Your task to perform on an android device: open a new tab in the chrome app Image 0: 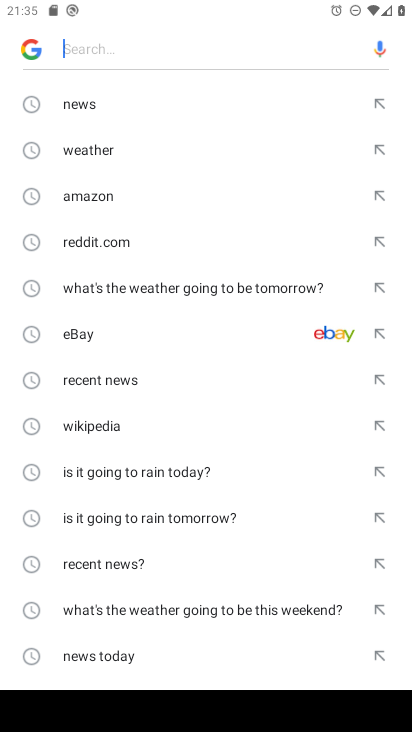
Step 0: press home button
Your task to perform on an android device: open a new tab in the chrome app Image 1: 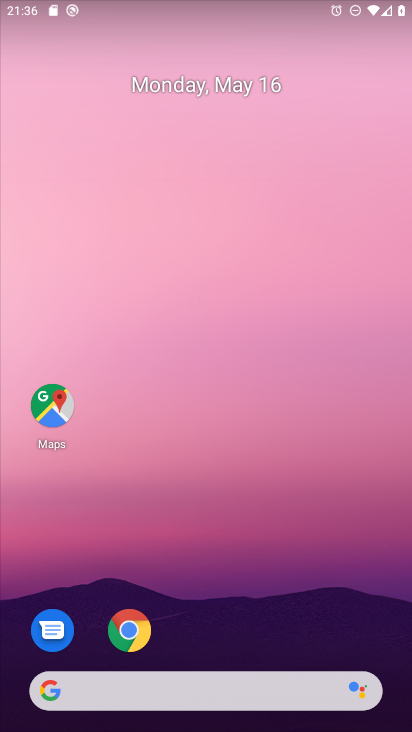
Step 1: click (130, 622)
Your task to perform on an android device: open a new tab in the chrome app Image 2: 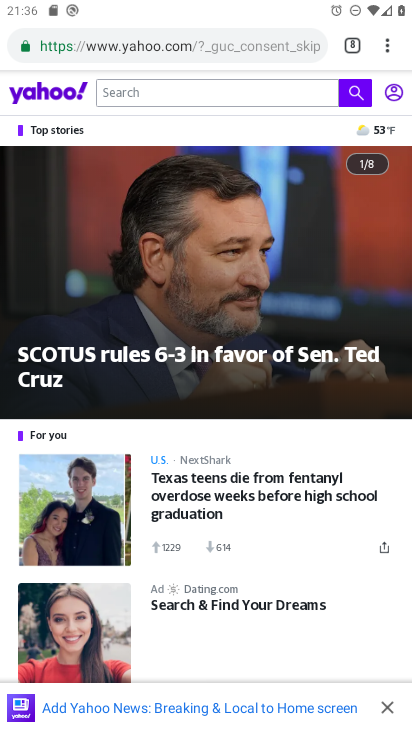
Step 2: click (348, 39)
Your task to perform on an android device: open a new tab in the chrome app Image 3: 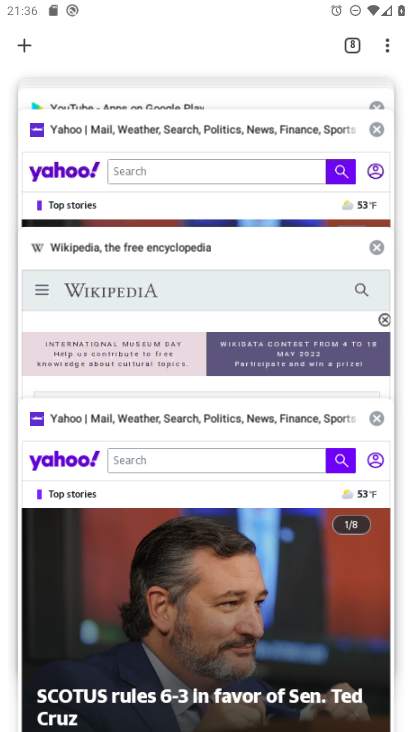
Step 3: click (21, 46)
Your task to perform on an android device: open a new tab in the chrome app Image 4: 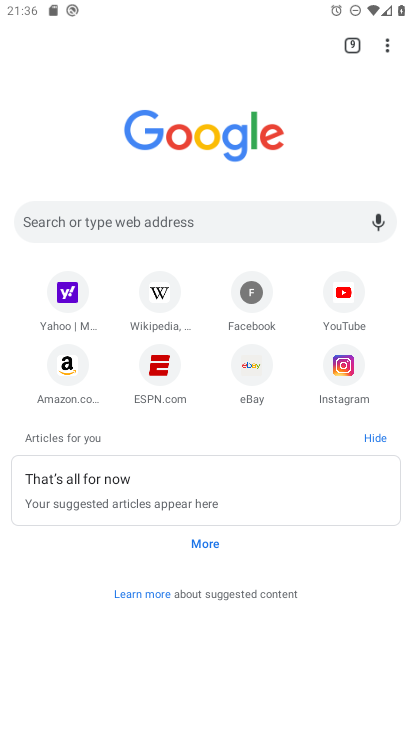
Step 4: task complete